Your task to perform on an android device: change the clock display to analog Image 0: 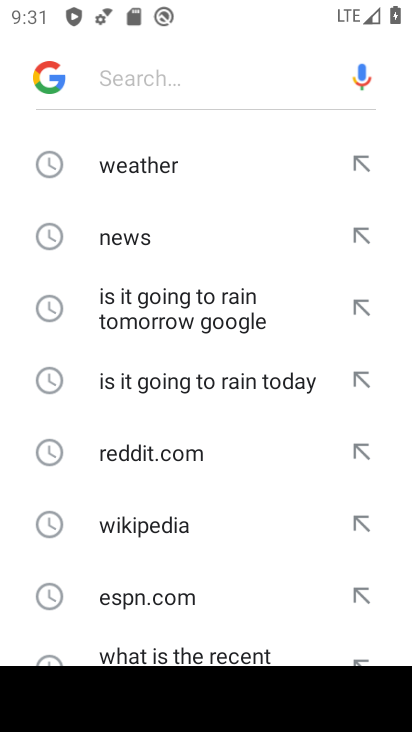
Step 0: press home button
Your task to perform on an android device: change the clock display to analog Image 1: 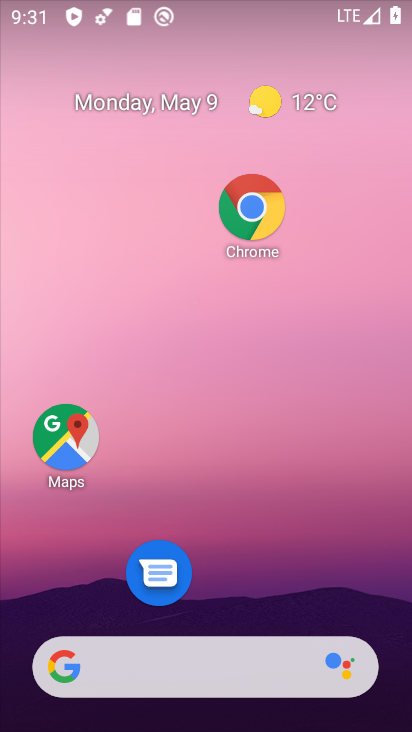
Step 1: drag from (257, 616) to (281, 280)
Your task to perform on an android device: change the clock display to analog Image 2: 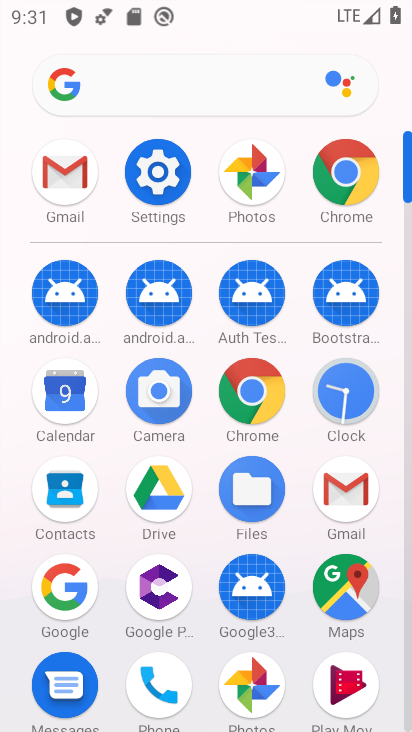
Step 2: click (356, 418)
Your task to perform on an android device: change the clock display to analog Image 3: 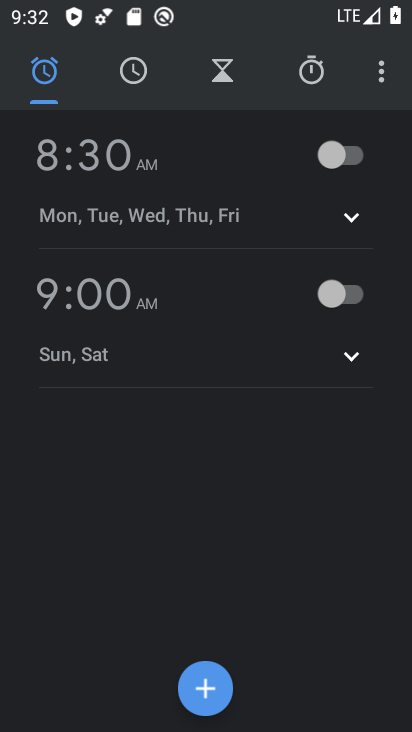
Step 3: click (391, 69)
Your task to perform on an android device: change the clock display to analog Image 4: 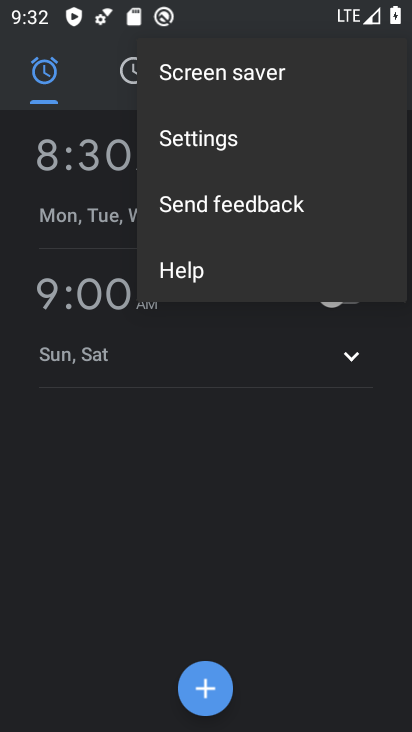
Step 4: click (247, 143)
Your task to perform on an android device: change the clock display to analog Image 5: 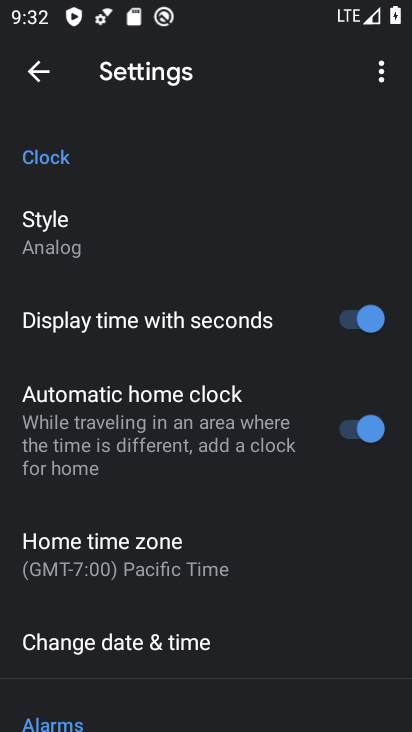
Step 5: task complete